Your task to perform on an android device: Go to wifi settings Image 0: 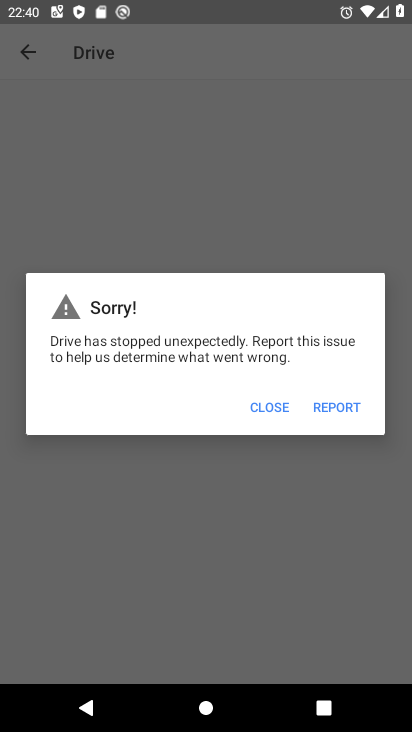
Step 0: press home button
Your task to perform on an android device: Go to wifi settings Image 1: 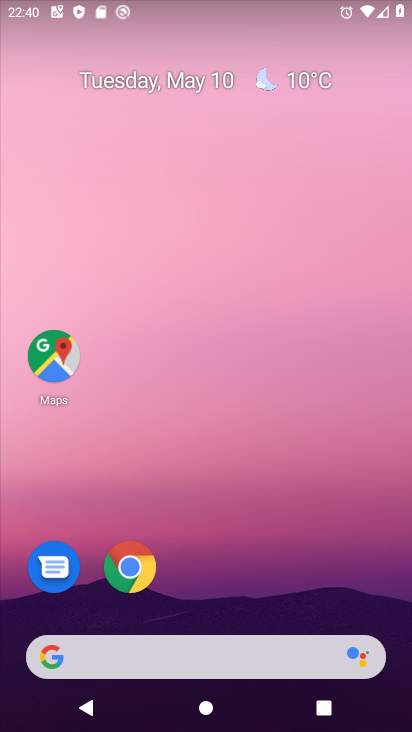
Step 1: drag from (334, 612) to (326, 12)
Your task to perform on an android device: Go to wifi settings Image 2: 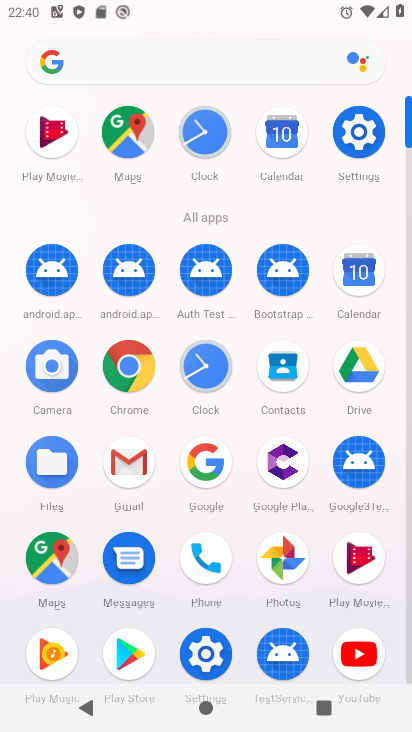
Step 2: click (349, 132)
Your task to perform on an android device: Go to wifi settings Image 3: 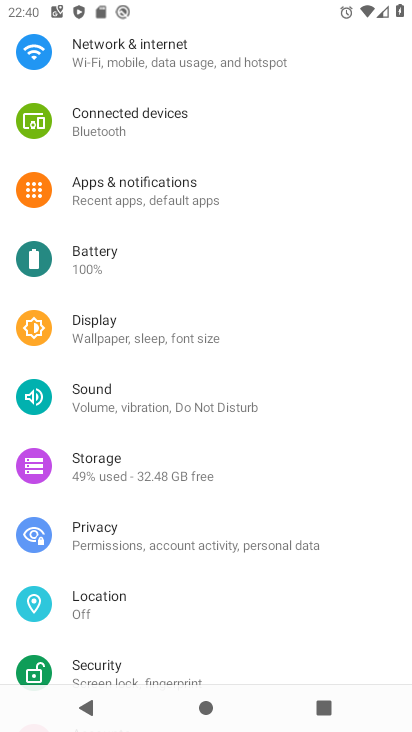
Step 3: click (130, 64)
Your task to perform on an android device: Go to wifi settings Image 4: 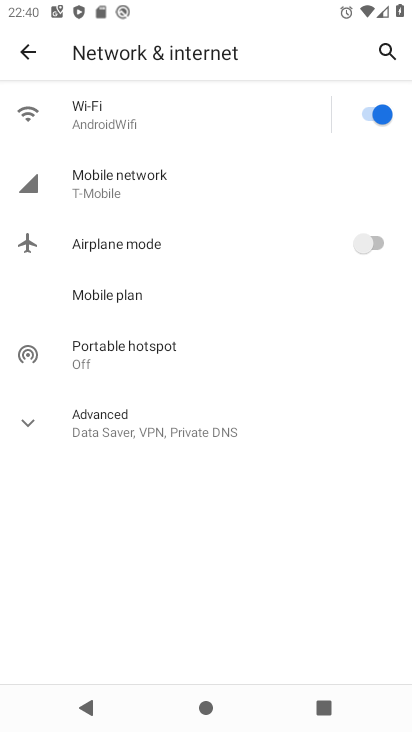
Step 4: click (66, 122)
Your task to perform on an android device: Go to wifi settings Image 5: 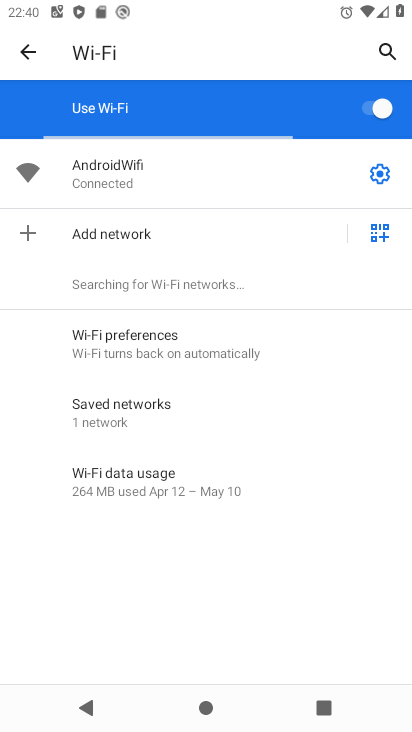
Step 5: task complete